Your task to perform on an android device: change the clock display to digital Image 0: 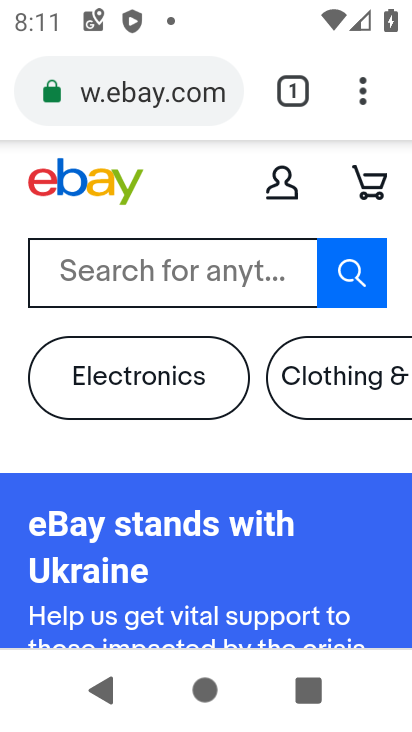
Step 0: press home button
Your task to perform on an android device: change the clock display to digital Image 1: 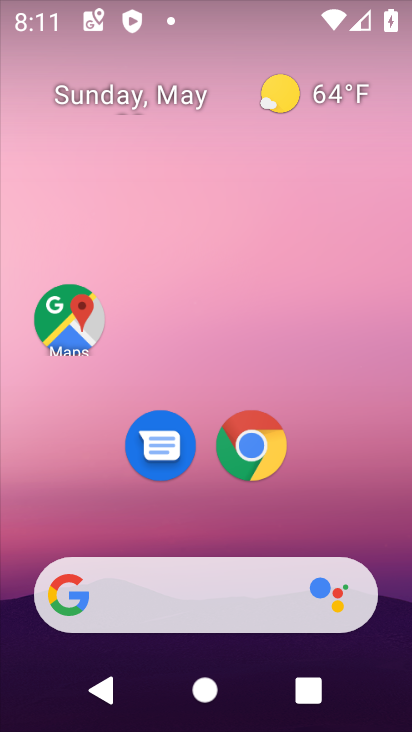
Step 1: drag from (186, 484) to (224, 196)
Your task to perform on an android device: change the clock display to digital Image 2: 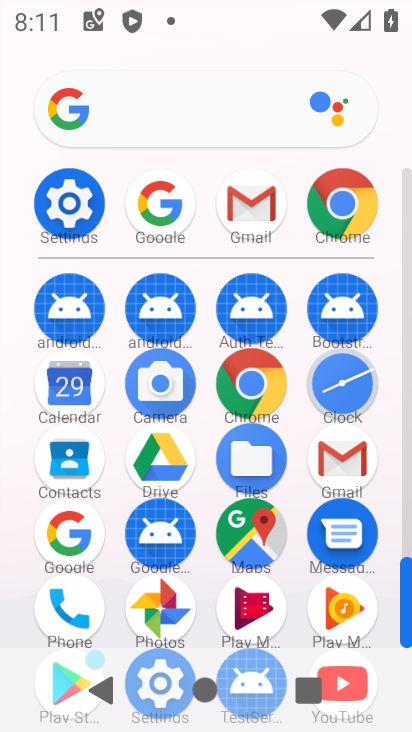
Step 2: click (344, 389)
Your task to perform on an android device: change the clock display to digital Image 3: 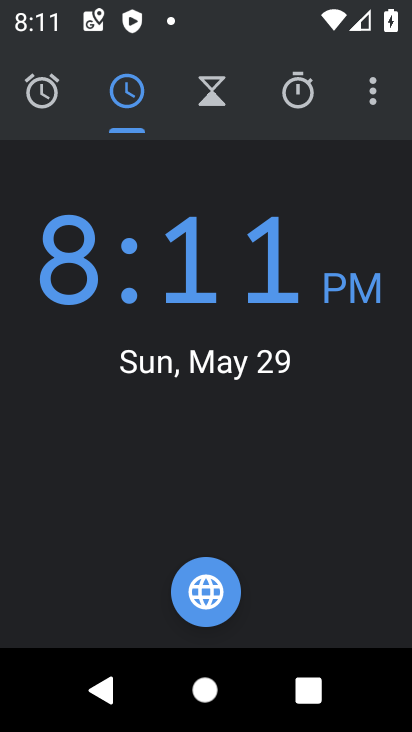
Step 3: click (373, 96)
Your task to perform on an android device: change the clock display to digital Image 4: 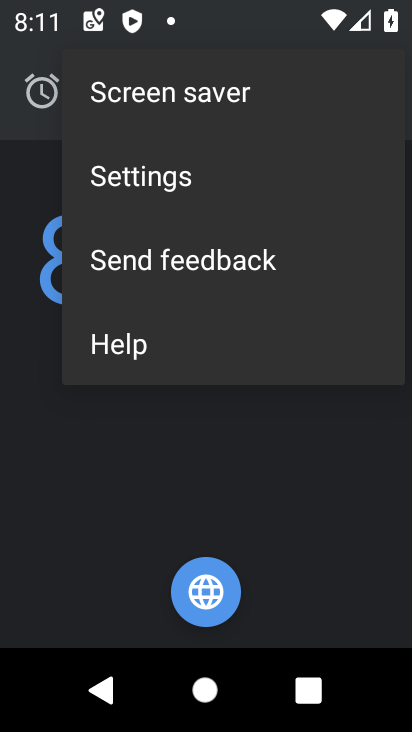
Step 4: click (182, 178)
Your task to perform on an android device: change the clock display to digital Image 5: 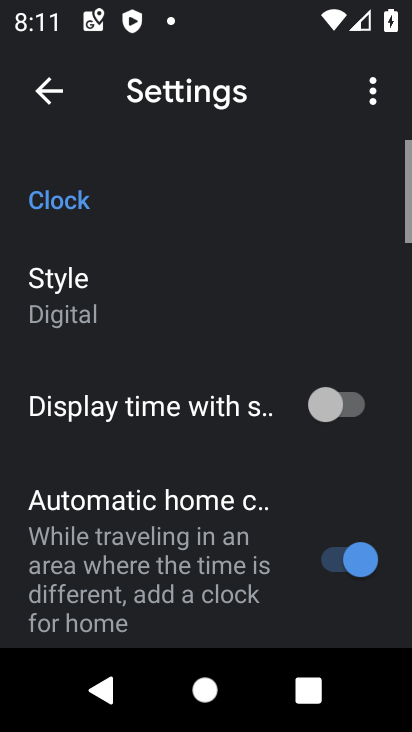
Step 5: click (92, 286)
Your task to perform on an android device: change the clock display to digital Image 6: 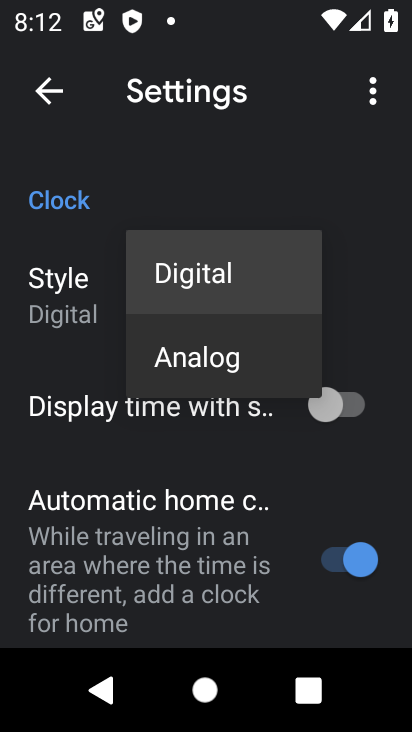
Step 6: click (213, 291)
Your task to perform on an android device: change the clock display to digital Image 7: 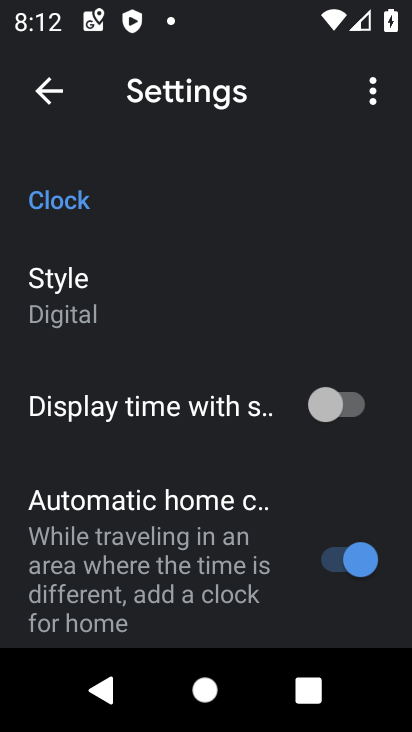
Step 7: task complete